Your task to perform on an android device: set the stopwatch Image 0: 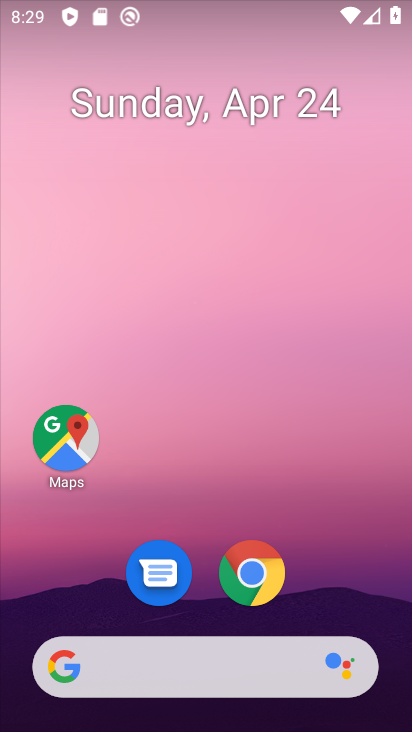
Step 0: drag from (353, 483) to (311, 116)
Your task to perform on an android device: set the stopwatch Image 1: 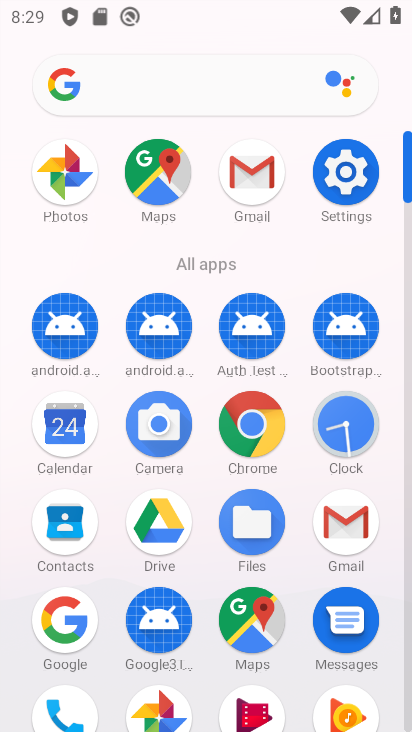
Step 1: click (346, 428)
Your task to perform on an android device: set the stopwatch Image 2: 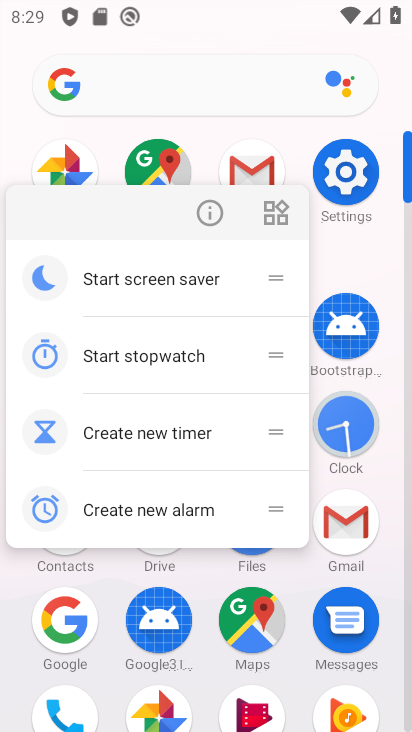
Step 2: click (360, 429)
Your task to perform on an android device: set the stopwatch Image 3: 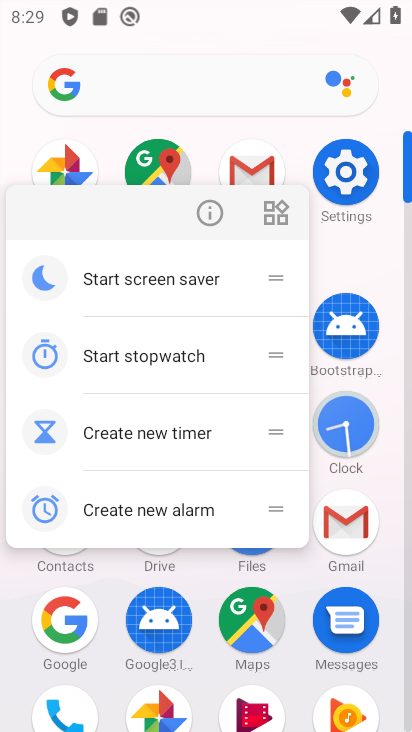
Step 3: click (352, 429)
Your task to perform on an android device: set the stopwatch Image 4: 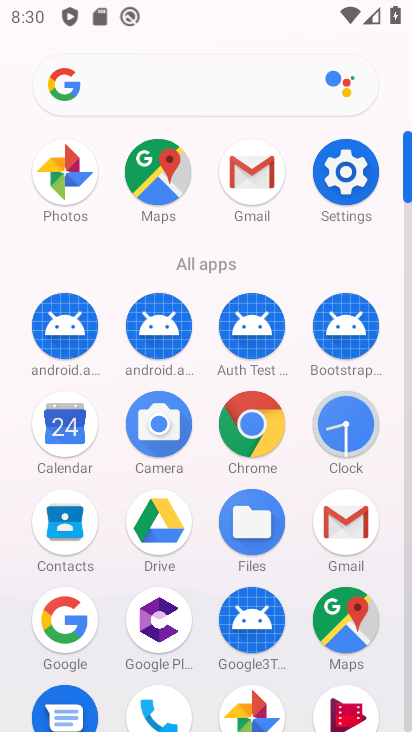
Step 4: click (346, 419)
Your task to perform on an android device: set the stopwatch Image 5: 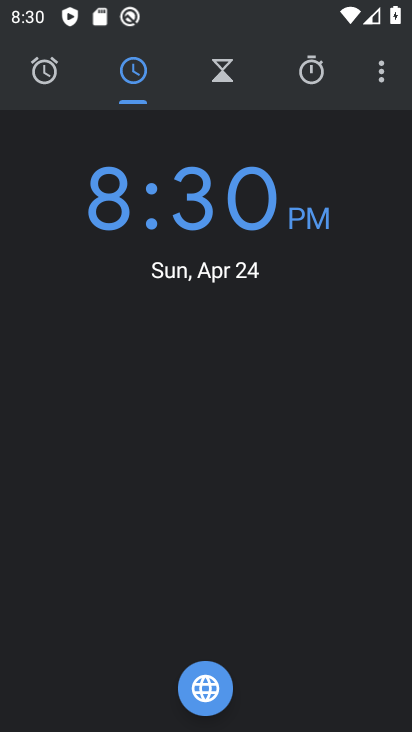
Step 5: click (312, 69)
Your task to perform on an android device: set the stopwatch Image 6: 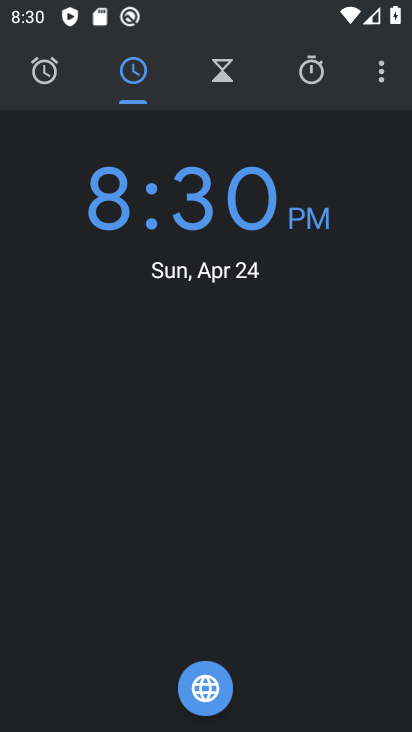
Step 6: click (312, 69)
Your task to perform on an android device: set the stopwatch Image 7: 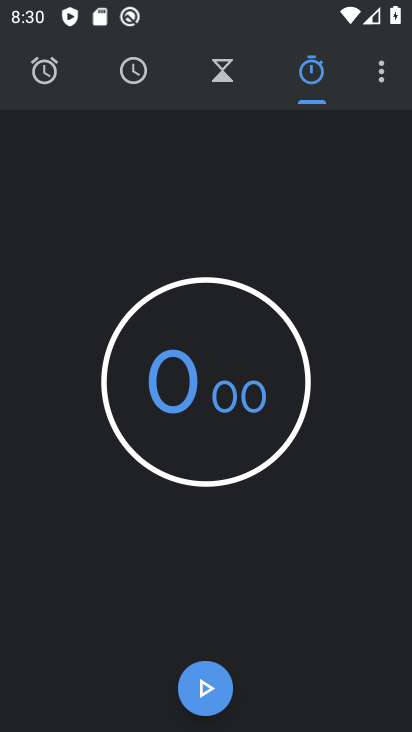
Step 7: click (220, 703)
Your task to perform on an android device: set the stopwatch Image 8: 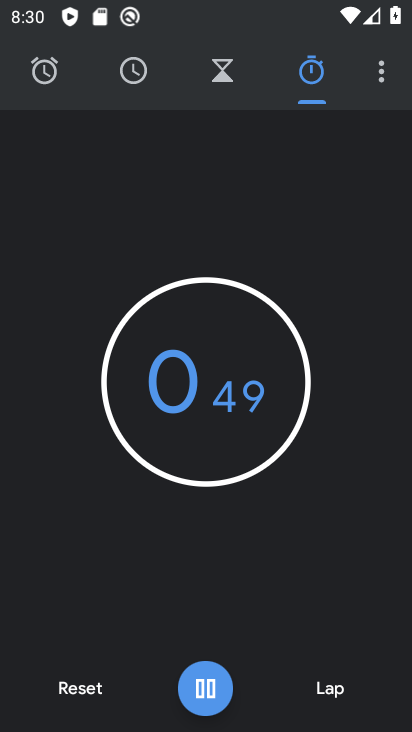
Step 8: click (220, 703)
Your task to perform on an android device: set the stopwatch Image 9: 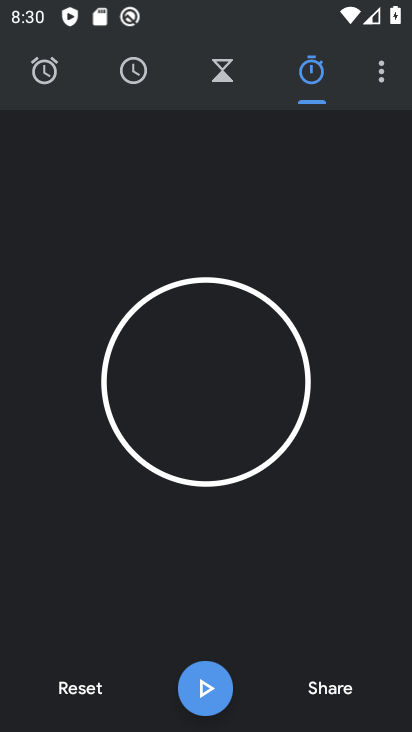
Step 9: task complete